Your task to perform on an android device: turn pop-ups on in chrome Image 0: 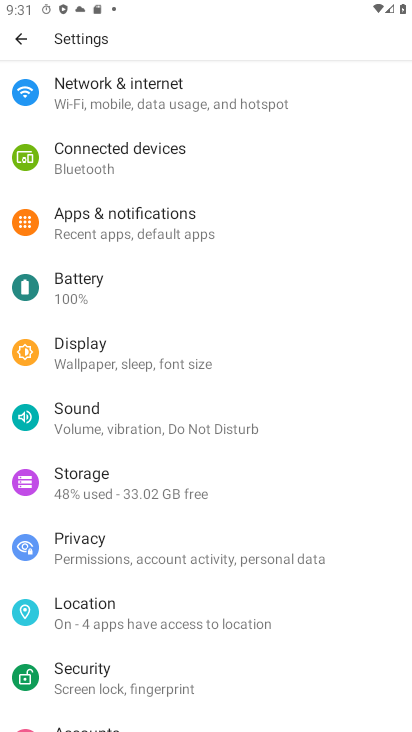
Step 0: press back button
Your task to perform on an android device: turn pop-ups on in chrome Image 1: 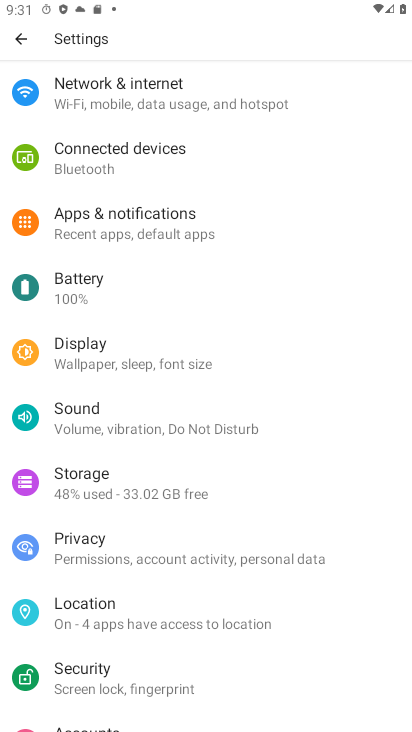
Step 1: press back button
Your task to perform on an android device: turn pop-ups on in chrome Image 2: 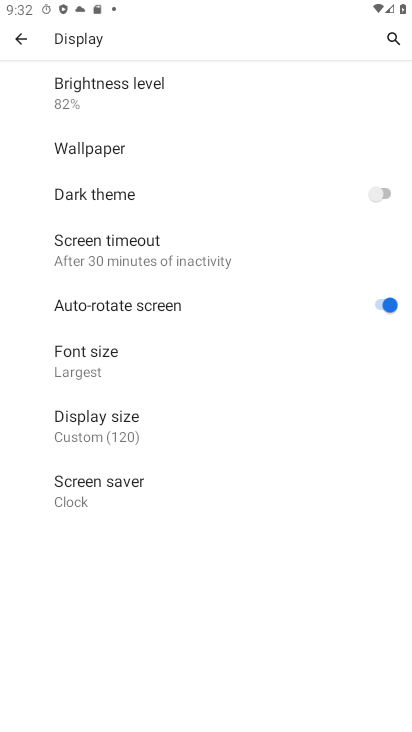
Step 2: click (21, 37)
Your task to perform on an android device: turn pop-ups on in chrome Image 3: 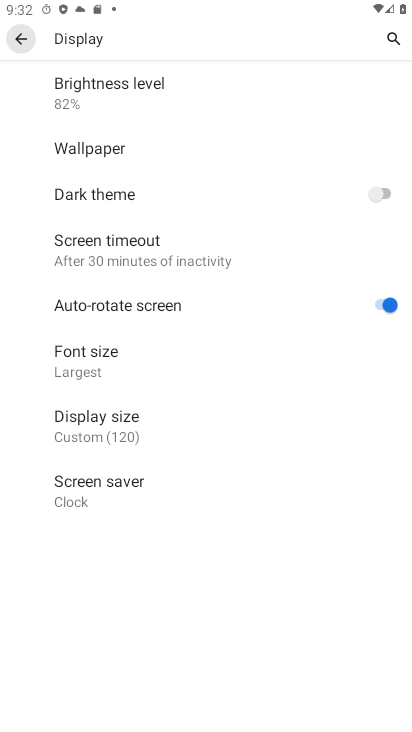
Step 3: click (22, 34)
Your task to perform on an android device: turn pop-ups on in chrome Image 4: 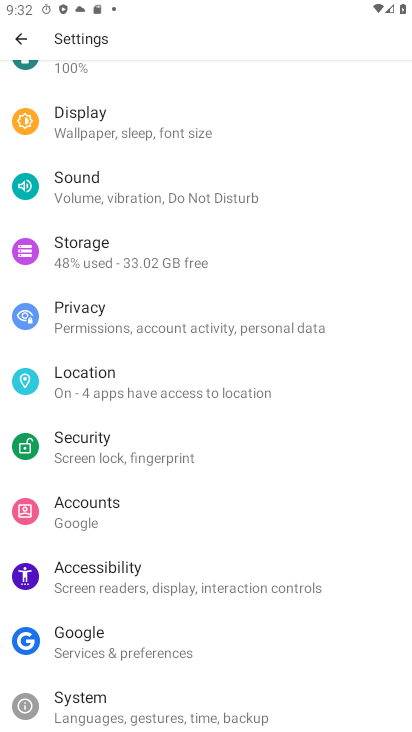
Step 4: drag from (94, 225) to (147, 407)
Your task to perform on an android device: turn pop-ups on in chrome Image 5: 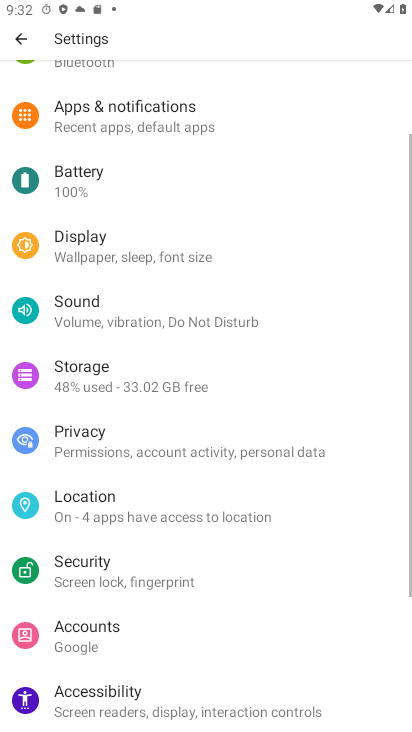
Step 5: drag from (133, 292) to (140, 474)
Your task to perform on an android device: turn pop-ups on in chrome Image 6: 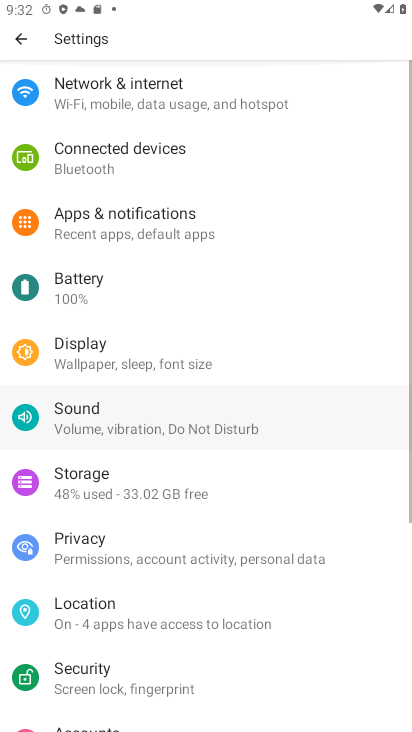
Step 6: drag from (112, 286) to (86, 588)
Your task to perform on an android device: turn pop-ups on in chrome Image 7: 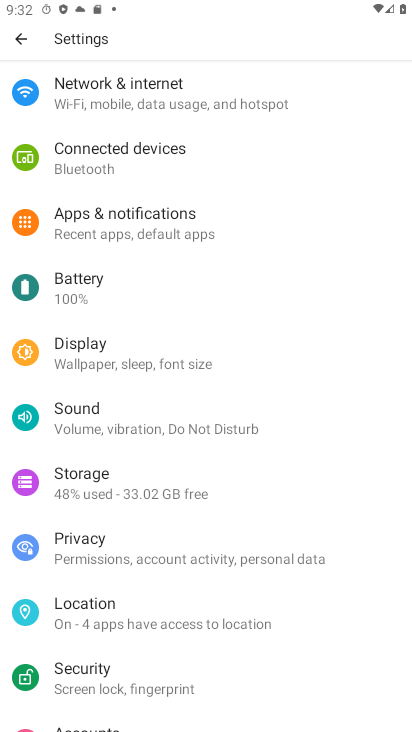
Step 7: press back button
Your task to perform on an android device: turn pop-ups on in chrome Image 8: 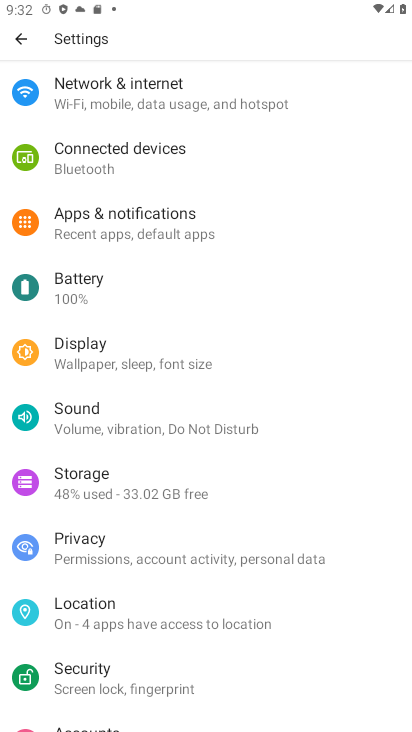
Step 8: press back button
Your task to perform on an android device: turn pop-ups on in chrome Image 9: 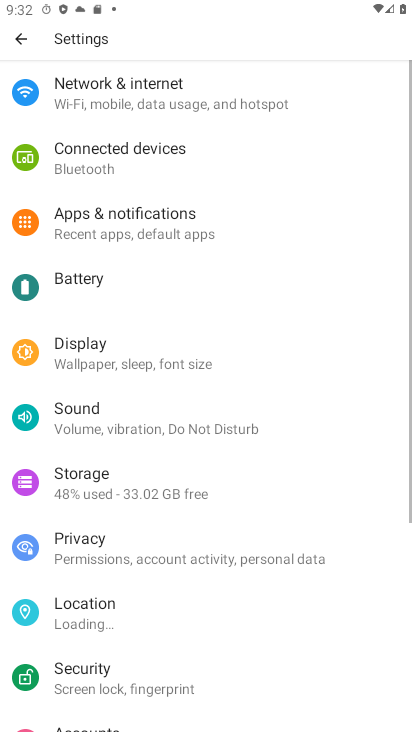
Step 9: press back button
Your task to perform on an android device: turn pop-ups on in chrome Image 10: 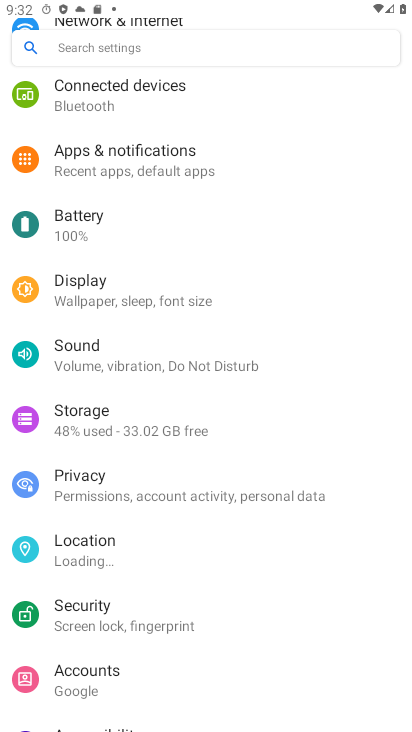
Step 10: press home button
Your task to perform on an android device: turn pop-ups on in chrome Image 11: 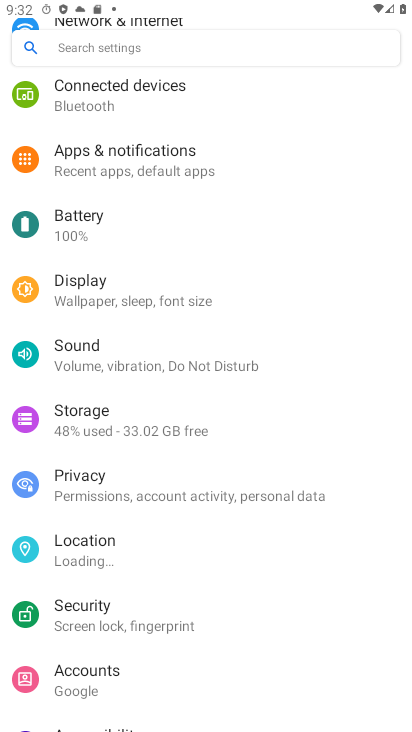
Step 11: press home button
Your task to perform on an android device: turn pop-ups on in chrome Image 12: 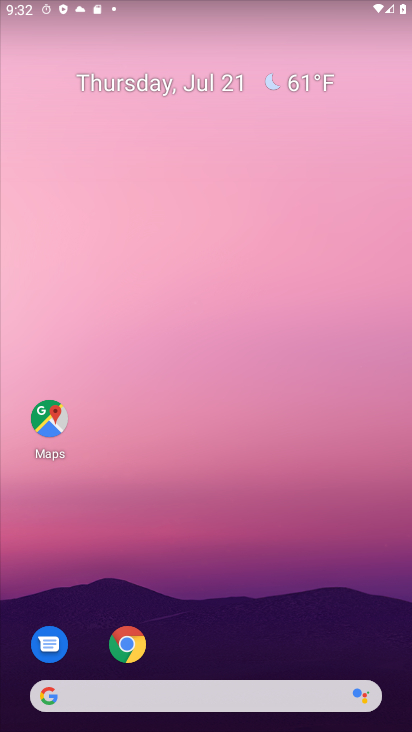
Step 12: drag from (299, 591) to (270, 227)
Your task to perform on an android device: turn pop-ups on in chrome Image 13: 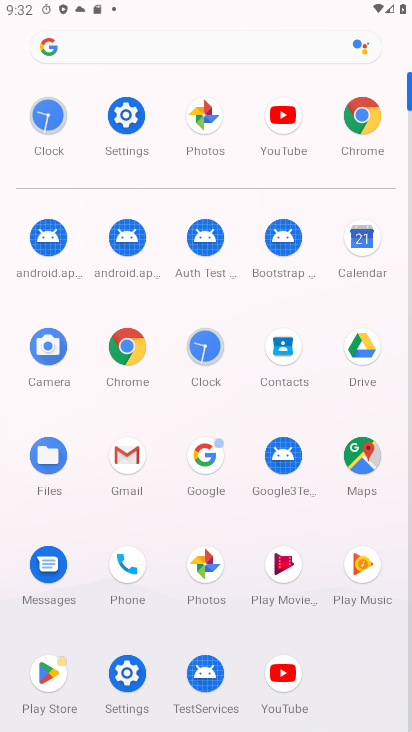
Step 13: click (367, 125)
Your task to perform on an android device: turn pop-ups on in chrome Image 14: 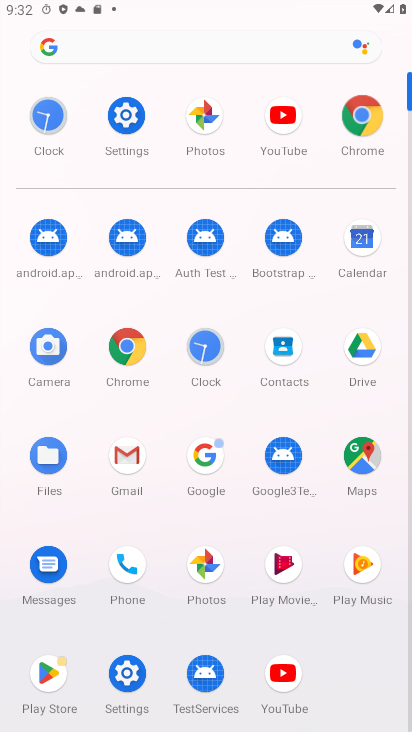
Step 14: click (367, 121)
Your task to perform on an android device: turn pop-ups on in chrome Image 15: 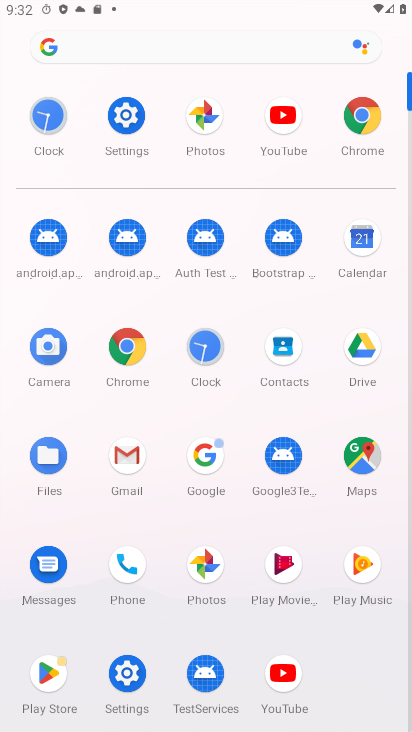
Step 15: click (341, 122)
Your task to perform on an android device: turn pop-ups on in chrome Image 16: 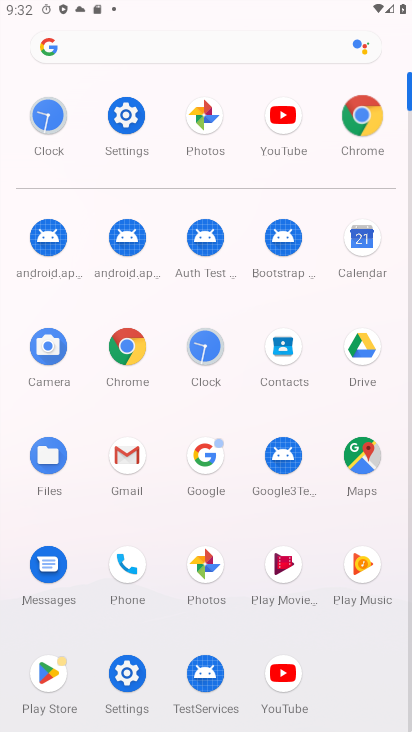
Step 16: click (354, 114)
Your task to perform on an android device: turn pop-ups on in chrome Image 17: 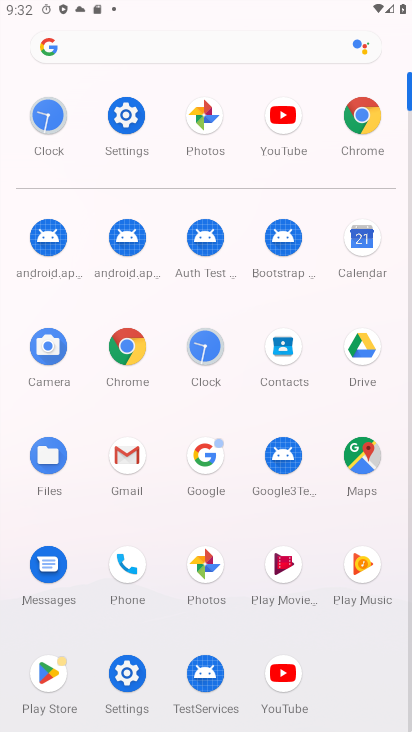
Step 17: click (363, 113)
Your task to perform on an android device: turn pop-ups on in chrome Image 18: 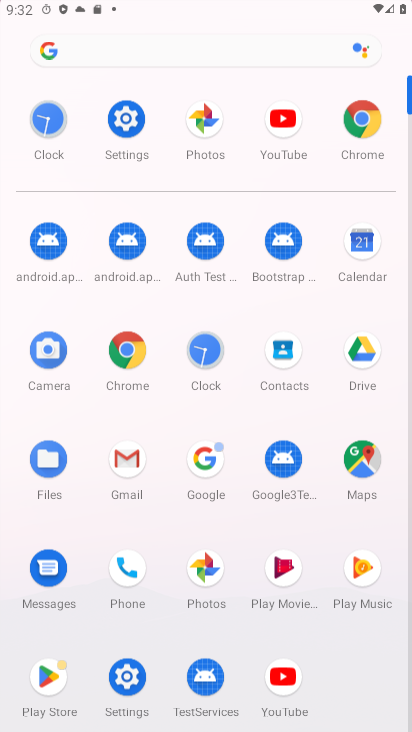
Step 18: click (359, 129)
Your task to perform on an android device: turn pop-ups on in chrome Image 19: 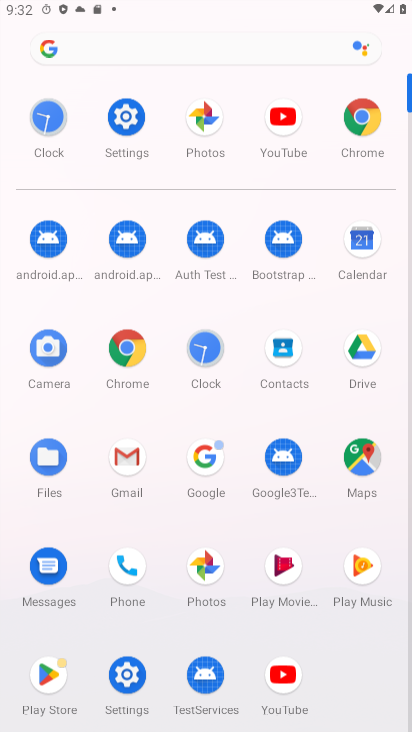
Step 19: click (361, 130)
Your task to perform on an android device: turn pop-ups on in chrome Image 20: 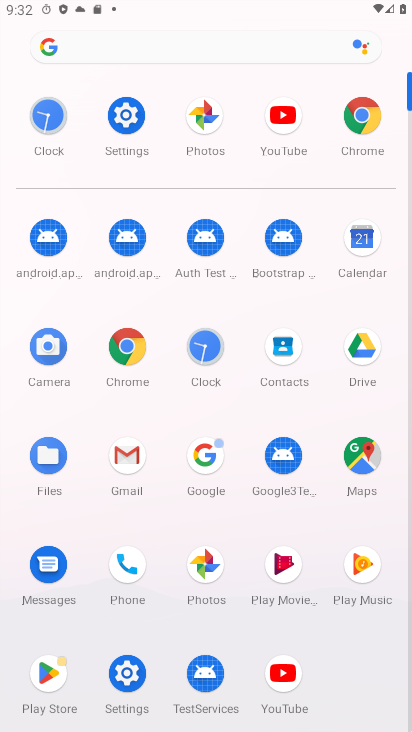
Step 20: click (362, 106)
Your task to perform on an android device: turn pop-ups on in chrome Image 21: 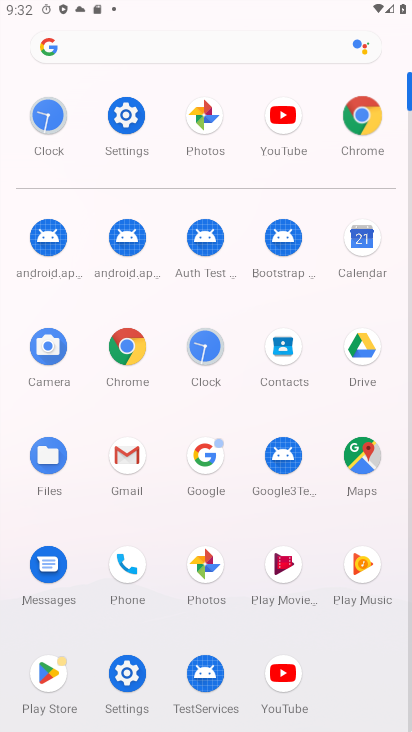
Step 21: click (365, 103)
Your task to perform on an android device: turn pop-ups on in chrome Image 22: 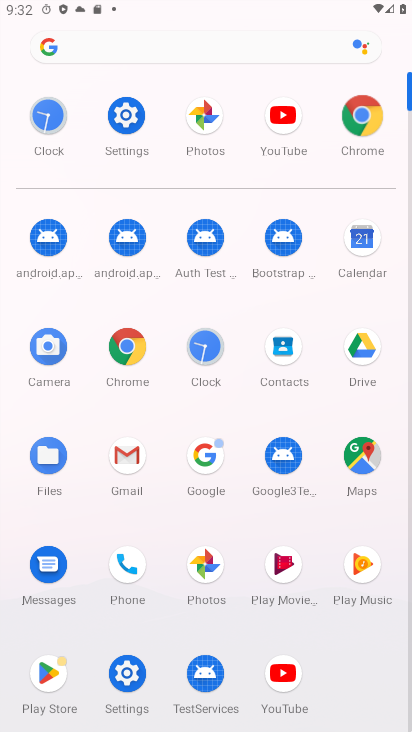
Step 22: click (364, 102)
Your task to perform on an android device: turn pop-ups on in chrome Image 23: 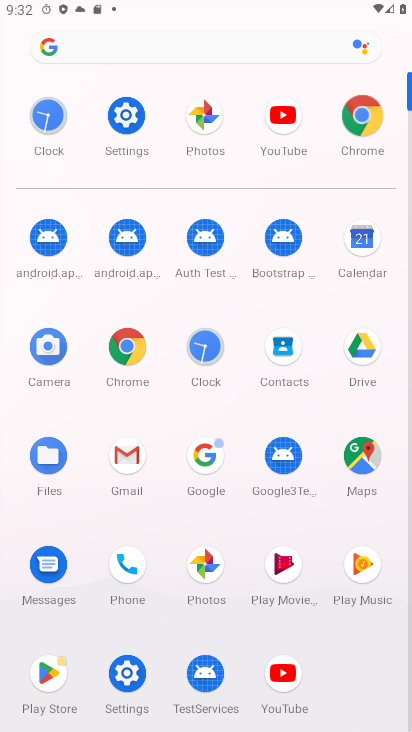
Step 23: click (365, 103)
Your task to perform on an android device: turn pop-ups on in chrome Image 24: 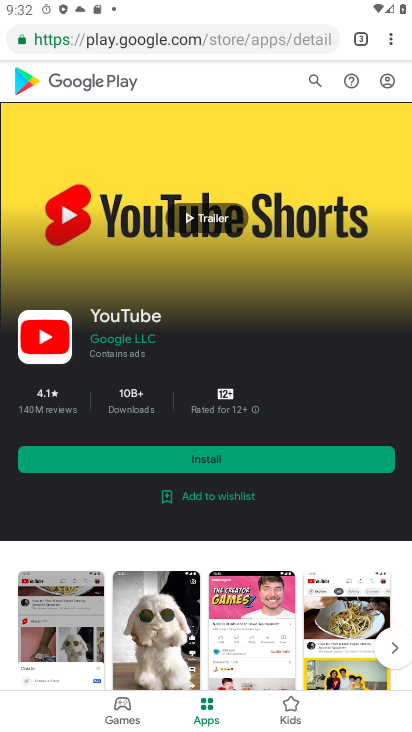
Step 24: click (380, 40)
Your task to perform on an android device: turn pop-ups on in chrome Image 25: 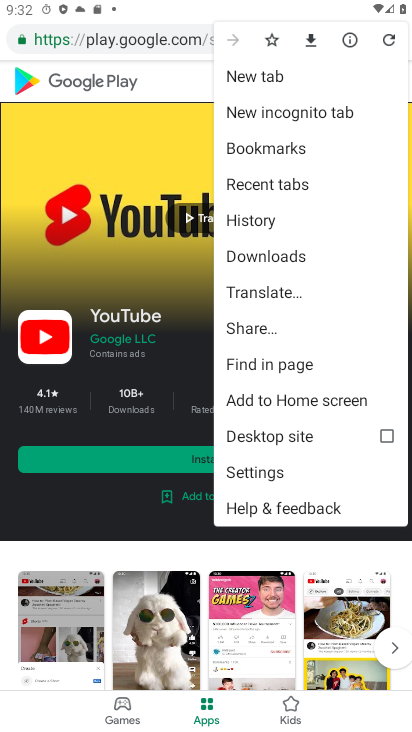
Step 25: click (255, 472)
Your task to perform on an android device: turn pop-ups on in chrome Image 26: 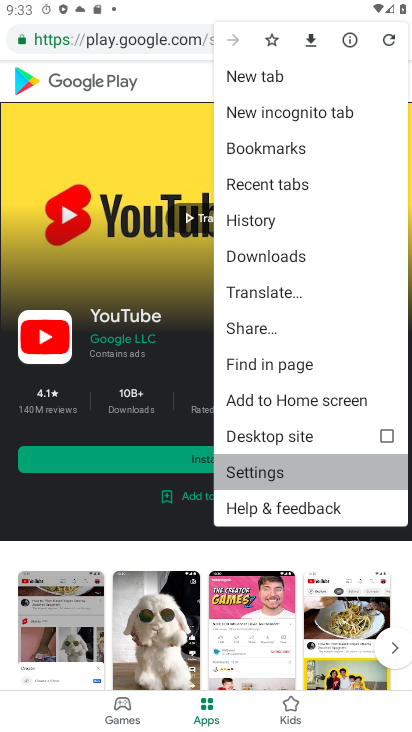
Step 26: click (255, 472)
Your task to perform on an android device: turn pop-ups on in chrome Image 27: 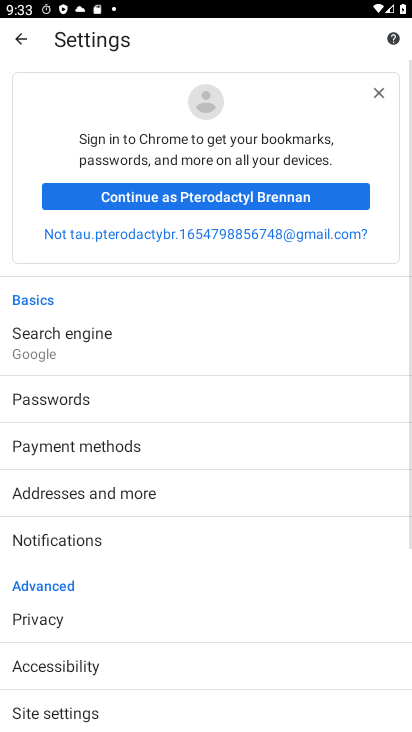
Step 27: drag from (120, 604) to (202, 103)
Your task to perform on an android device: turn pop-ups on in chrome Image 28: 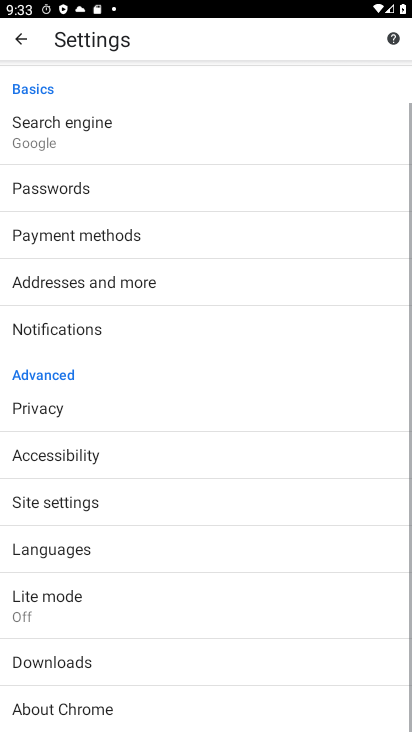
Step 28: drag from (242, 500) to (239, 176)
Your task to perform on an android device: turn pop-ups on in chrome Image 29: 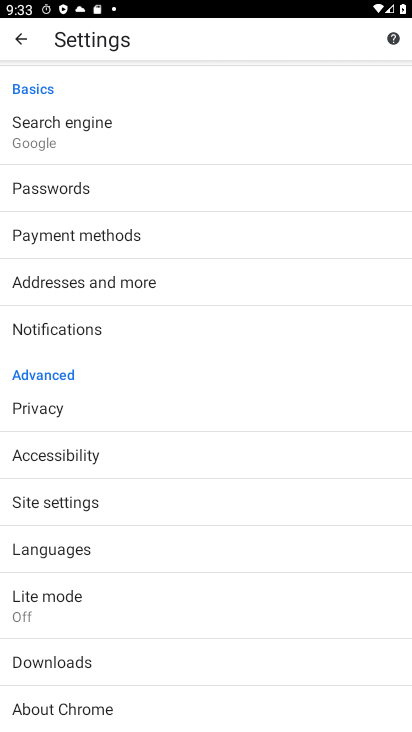
Step 29: click (46, 502)
Your task to perform on an android device: turn pop-ups on in chrome Image 30: 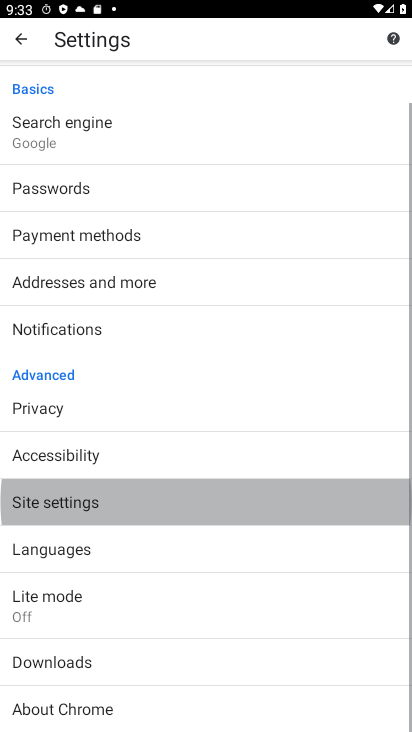
Step 30: click (47, 502)
Your task to perform on an android device: turn pop-ups on in chrome Image 31: 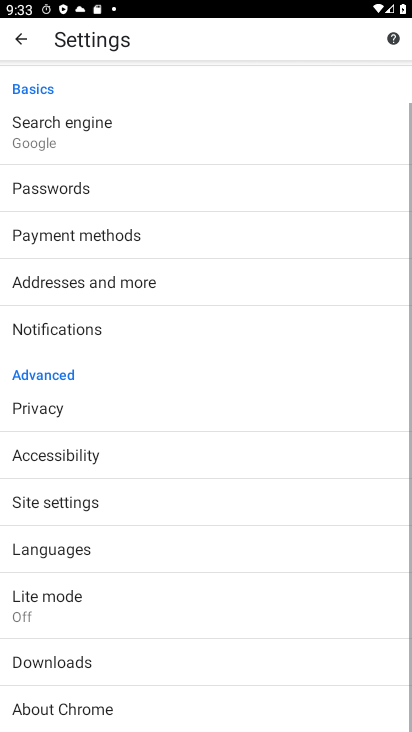
Step 31: click (50, 502)
Your task to perform on an android device: turn pop-ups on in chrome Image 32: 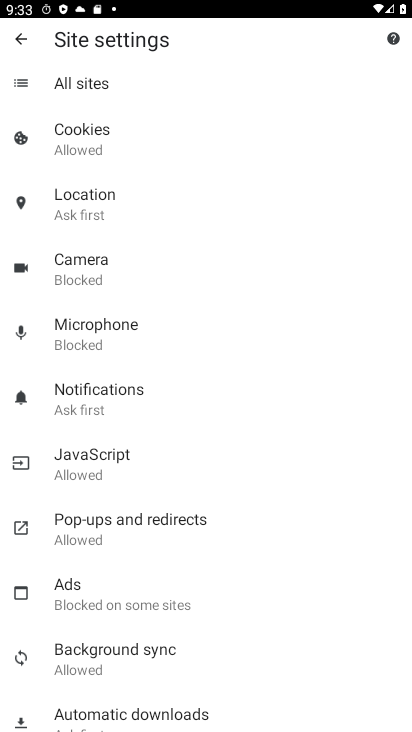
Step 32: click (76, 545)
Your task to perform on an android device: turn pop-ups on in chrome Image 33: 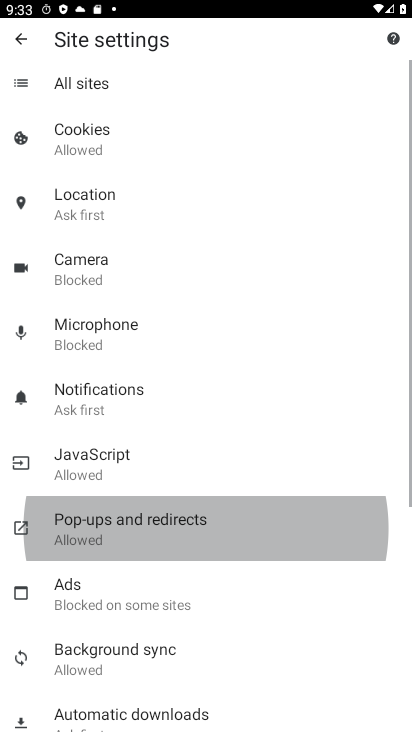
Step 33: click (82, 527)
Your task to perform on an android device: turn pop-ups on in chrome Image 34: 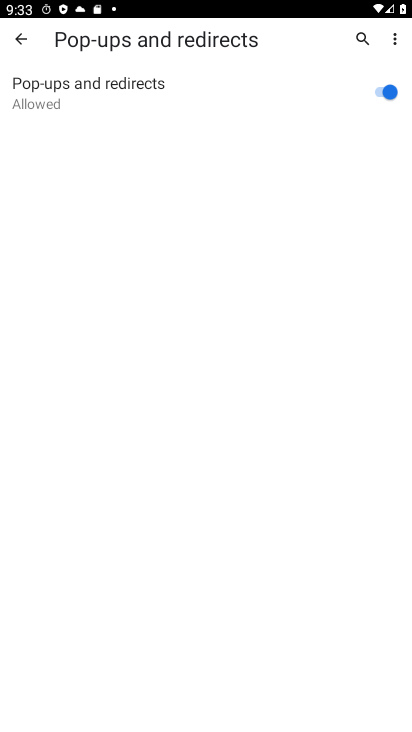
Step 34: task complete